Your task to perform on an android device: Show me productivity apps on the Play Store Image 0: 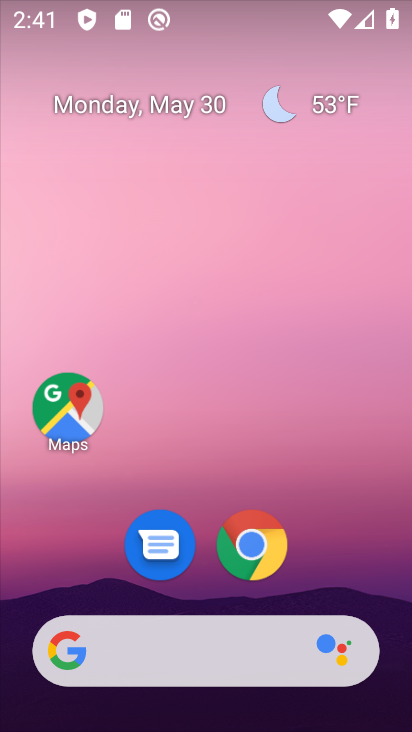
Step 0: drag from (224, 578) to (134, 0)
Your task to perform on an android device: Show me productivity apps on the Play Store Image 1: 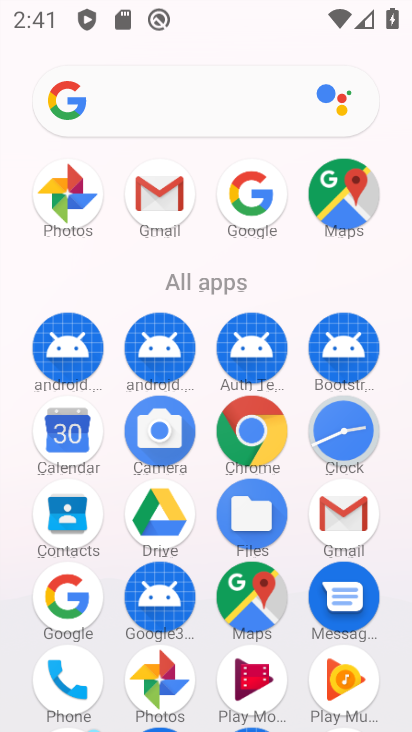
Step 1: drag from (109, 637) to (95, 229)
Your task to perform on an android device: Show me productivity apps on the Play Store Image 2: 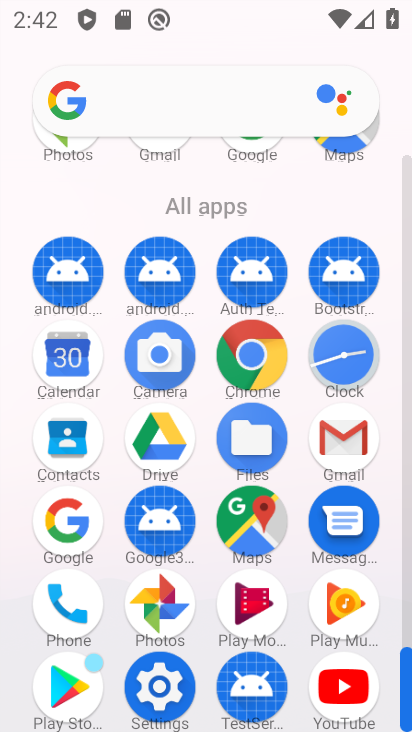
Step 2: click (64, 694)
Your task to perform on an android device: Show me productivity apps on the Play Store Image 3: 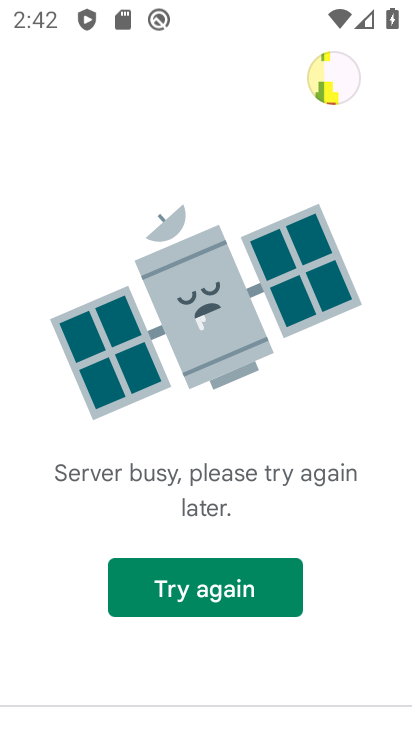
Step 3: click (224, 608)
Your task to perform on an android device: Show me productivity apps on the Play Store Image 4: 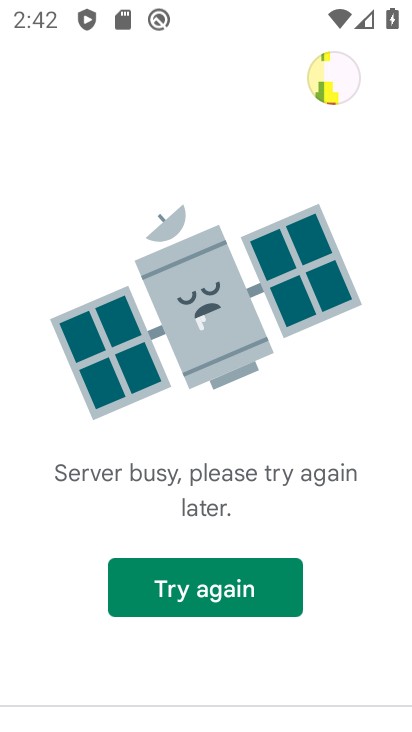
Step 4: task complete